Your task to perform on an android device: Is it going to rain this weekend? Image 0: 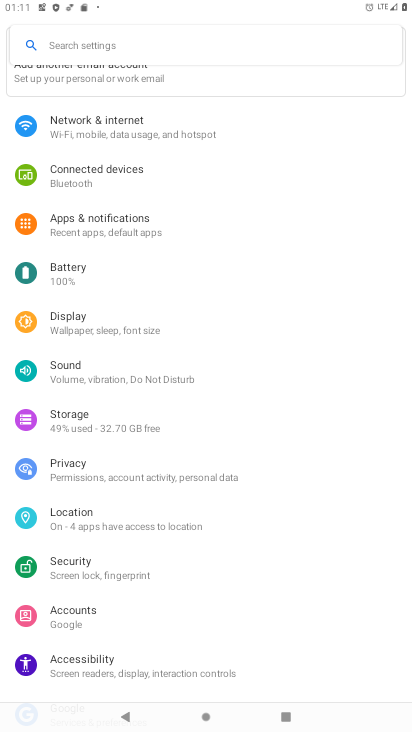
Step 0: press home button
Your task to perform on an android device: Is it going to rain this weekend? Image 1: 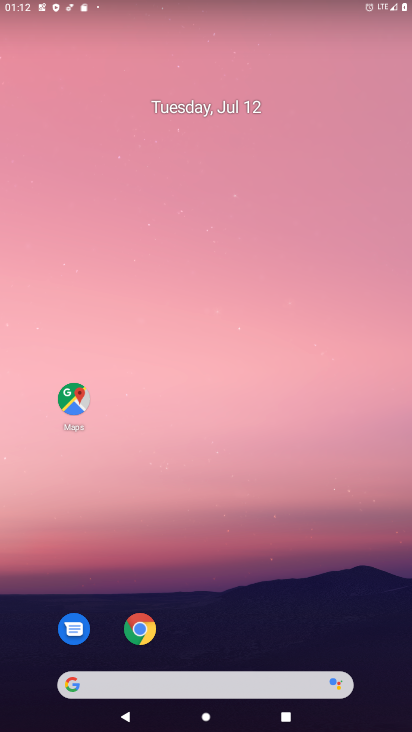
Step 1: click (106, 681)
Your task to perform on an android device: Is it going to rain this weekend? Image 2: 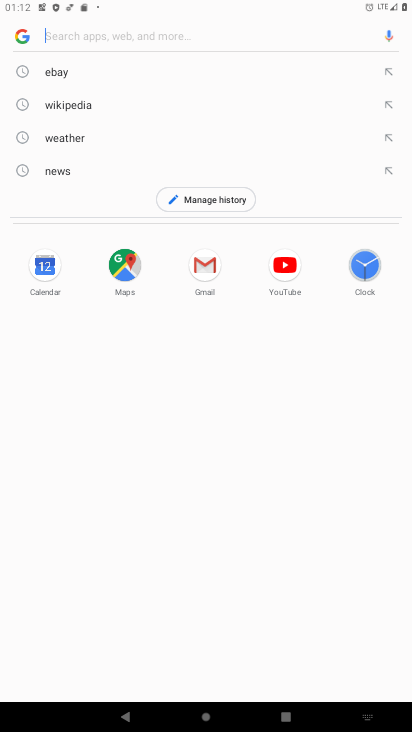
Step 2: type "Is it going to rain this weekend?"
Your task to perform on an android device: Is it going to rain this weekend? Image 3: 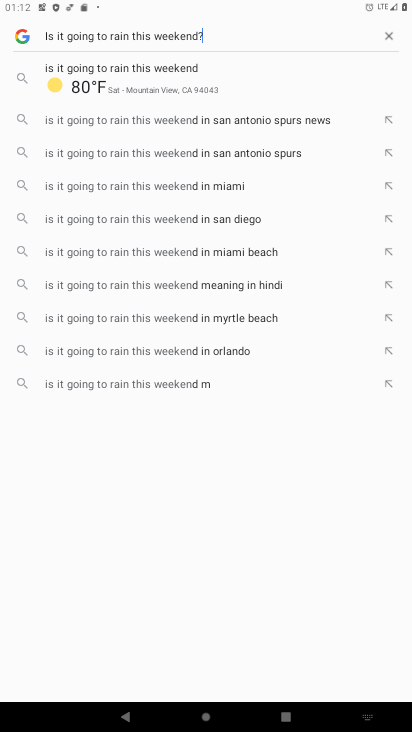
Step 3: type ""
Your task to perform on an android device: Is it going to rain this weekend? Image 4: 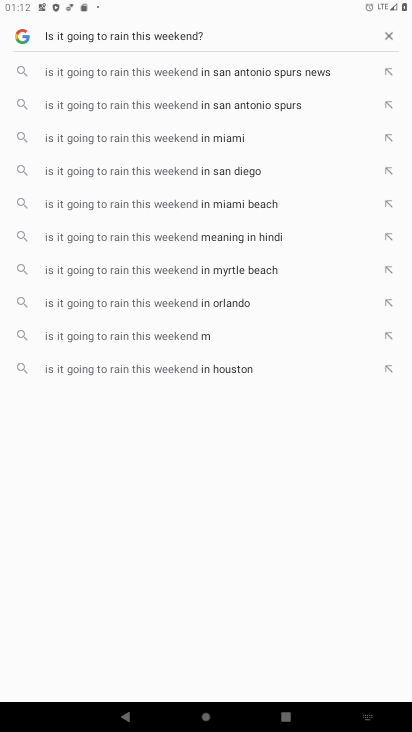
Step 4: type ""
Your task to perform on an android device: Is it going to rain this weekend? Image 5: 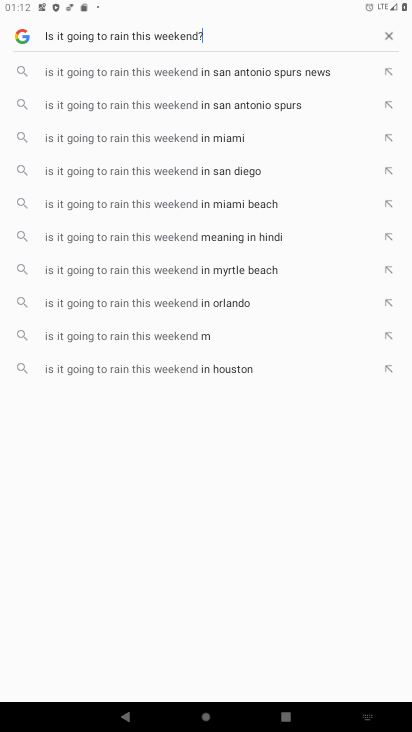
Step 5: type ""
Your task to perform on an android device: Is it going to rain this weekend? Image 6: 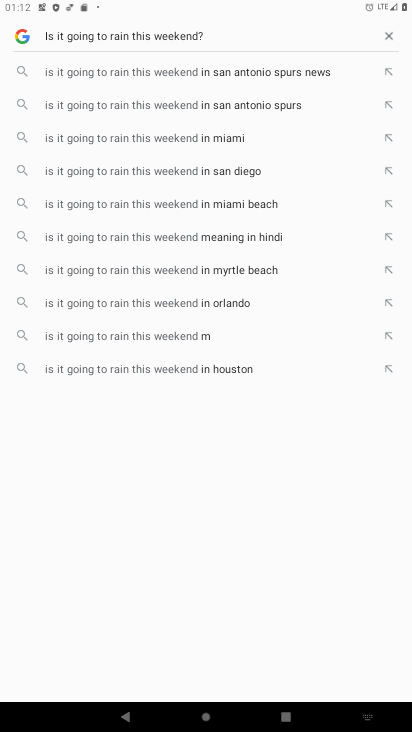
Step 6: type ""
Your task to perform on an android device: Is it going to rain this weekend? Image 7: 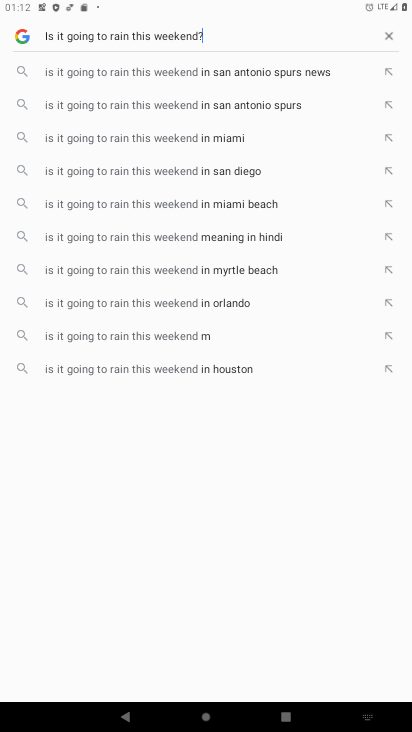
Step 7: click (242, 38)
Your task to perform on an android device: Is it going to rain this weekend? Image 8: 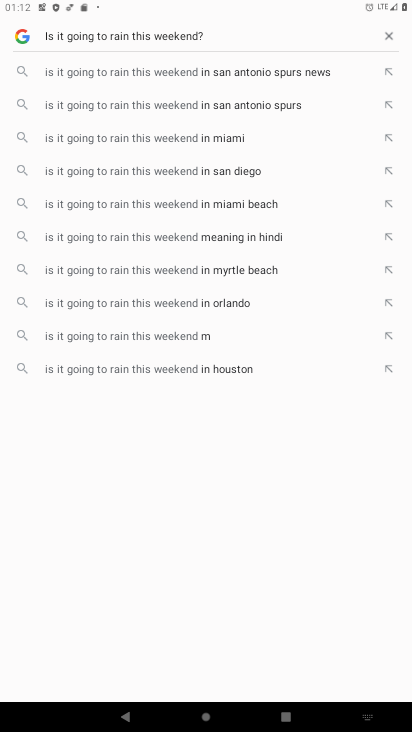
Step 8: click (239, 32)
Your task to perform on an android device: Is it going to rain this weekend? Image 9: 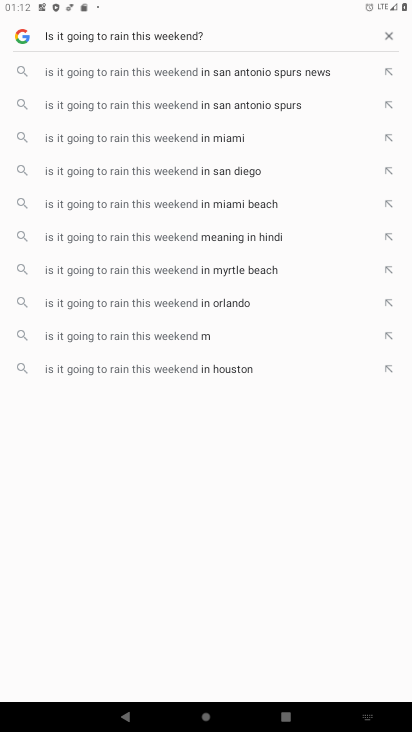
Step 9: task complete